Your task to perform on an android device: What's on my calendar tomorrow? Image 0: 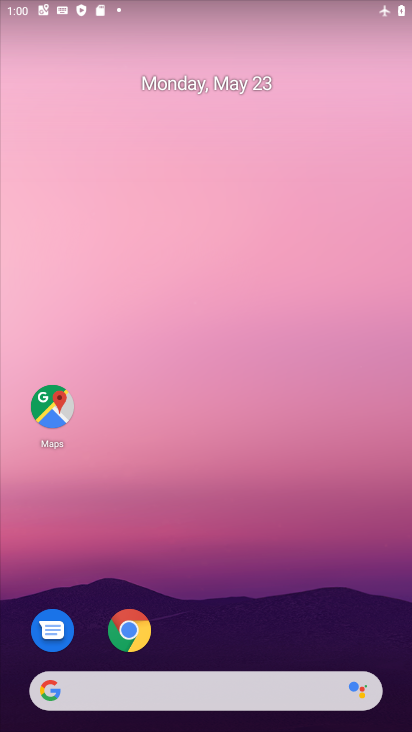
Step 0: drag from (249, 641) to (321, 51)
Your task to perform on an android device: What's on my calendar tomorrow? Image 1: 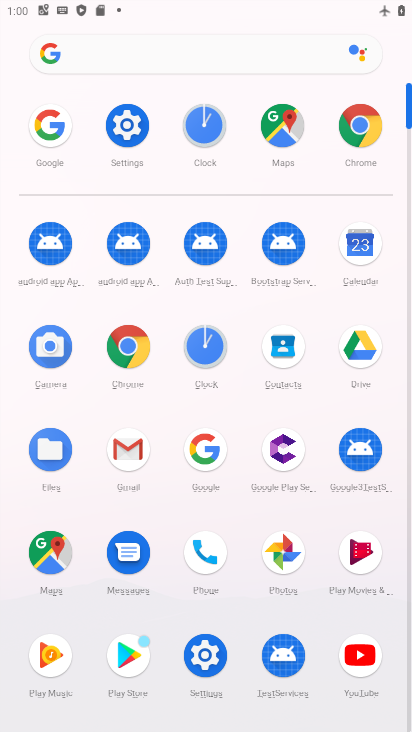
Step 1: click (370, 259)
Your task to perform on an android device: What's on my calendar tomorrow? Image 2: 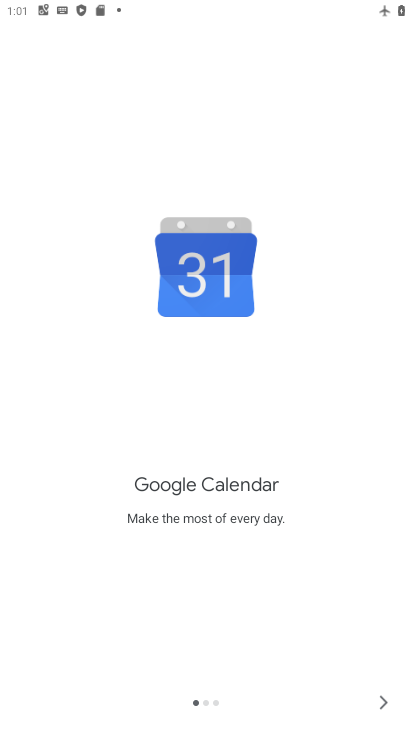
Step 2: click (383, 705)
Your task to perform on an android device: What's on my calendar tomorrow? Image 3: 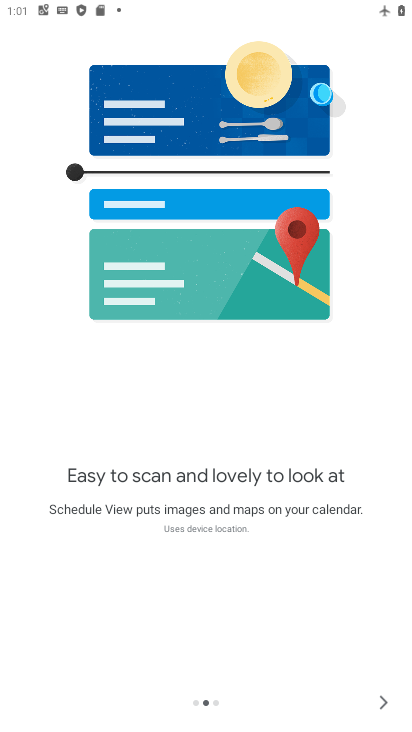
Step 3: click (386, 703)
Your task to perform on an android device: What's on my calendar tomorrow? Image 4: 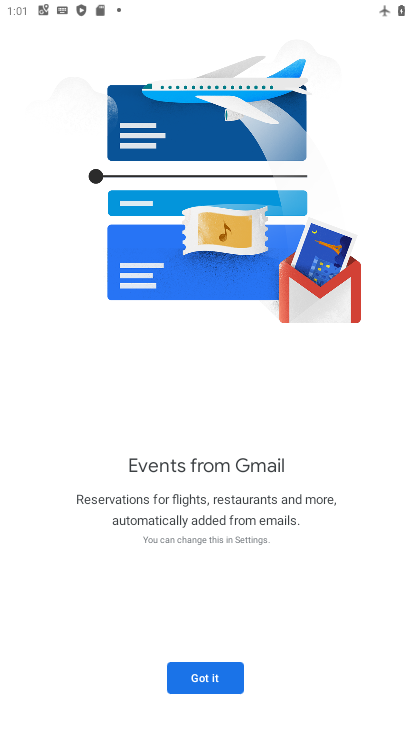
Step 4: click (213, 665)
Your task to perform on an android device: What's on my calendar tomorrow? Image 5: 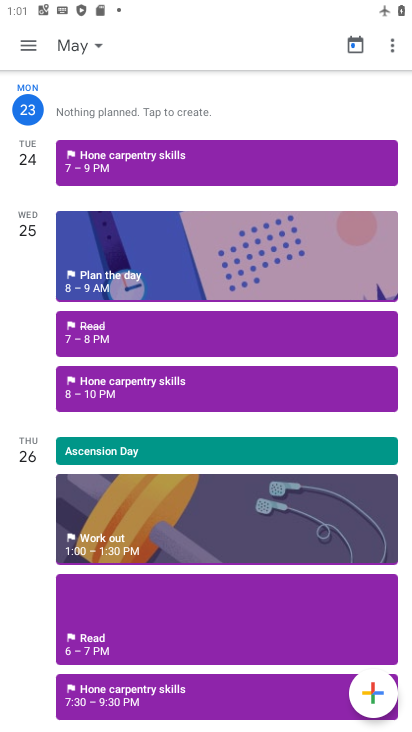
Step 5: click (90, 56)
Your task to perform on an android device: What's on my calendar tomorrow? Image 6: 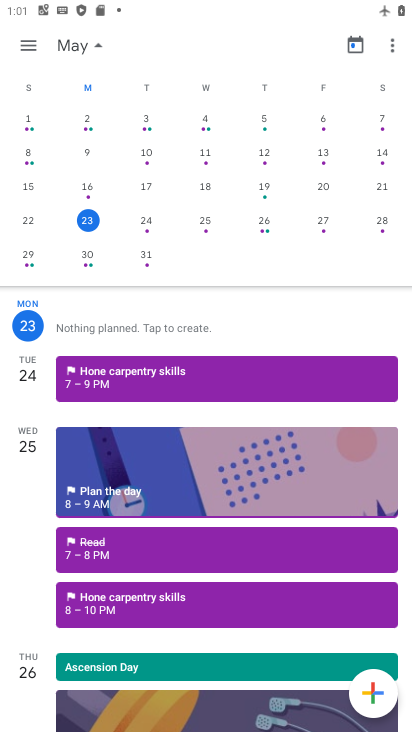
Step 6: click (150, 220)
Your task to perform on an android device: What's on my calendar tomorrow? Image 7: 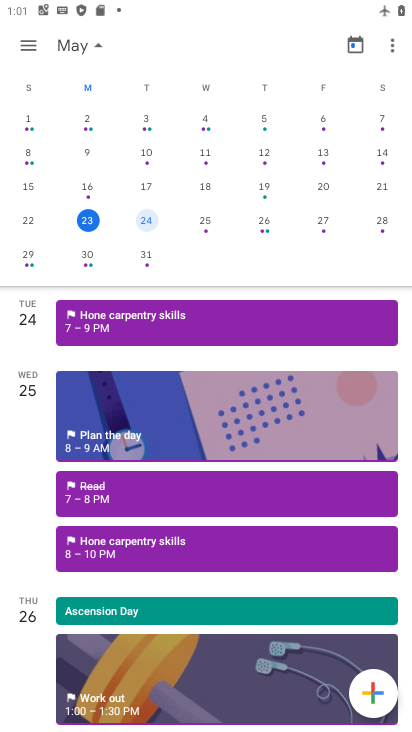
Step 7: task complete